Your task to perform on an android device: turn on sleep mode Image 0: 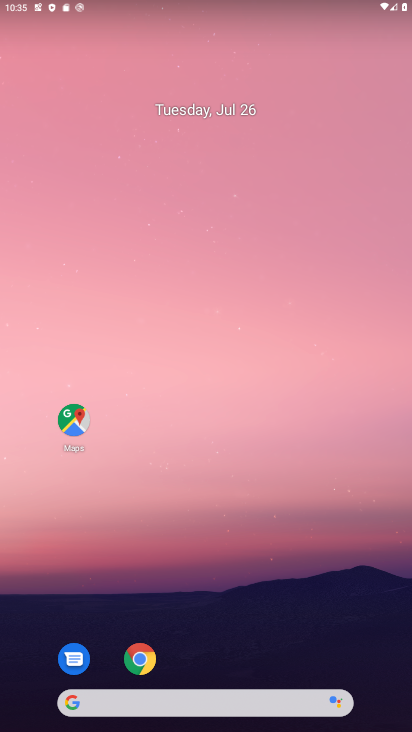
Step 0: drag from (198, 534) to (186, 65)
Your task to perform on an android device: turn on sleep mode Image 1: 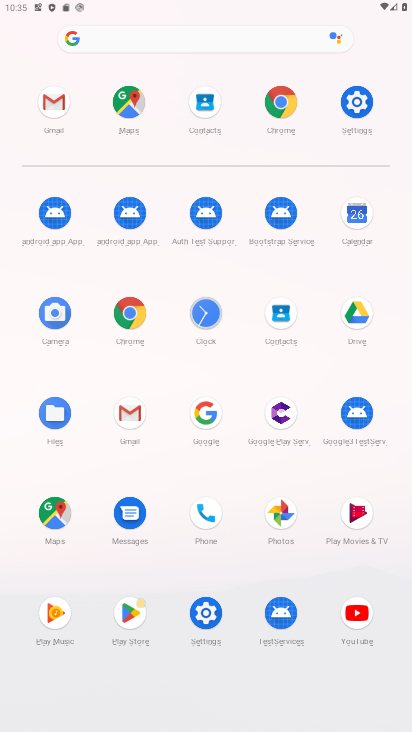
Step 1: click (201, 619)
Your task to perform on an android device: turn on sleep mode Image 2: 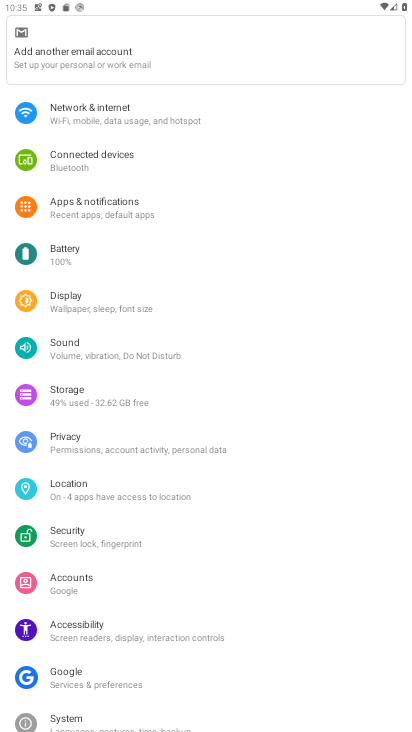
Step 2: drag from (126, 584) to (125, 291)
Your task to perform on an android device: turn on sleep mode Image 3: 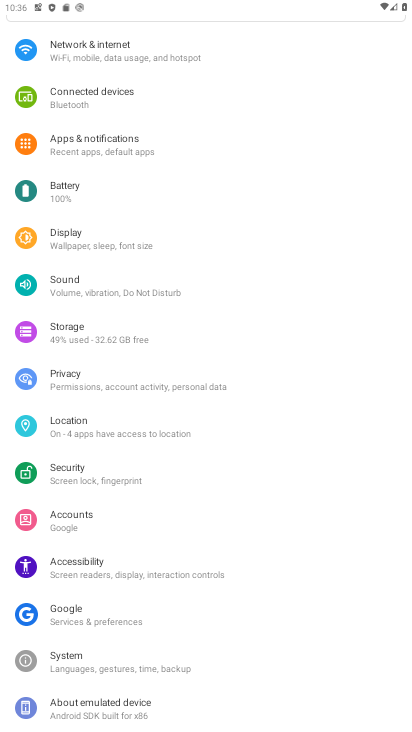
Step 3: click (82, 237)
Your task to perform on an android device: turn on sleep mode Image 4: 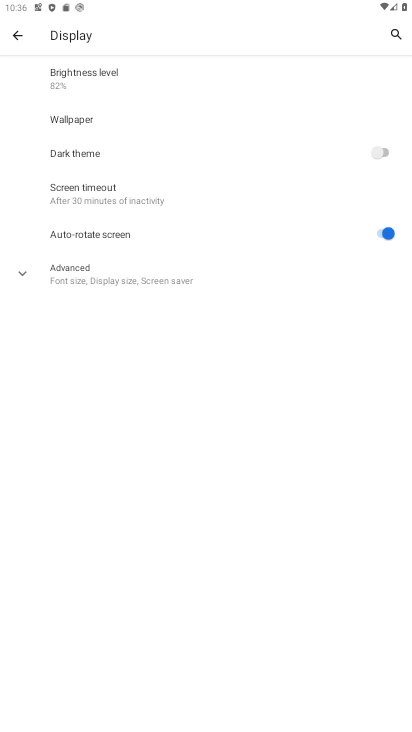
Step 4: task complete